Your task to perform on an android device: add a label to a message in the gmail app Image 0: 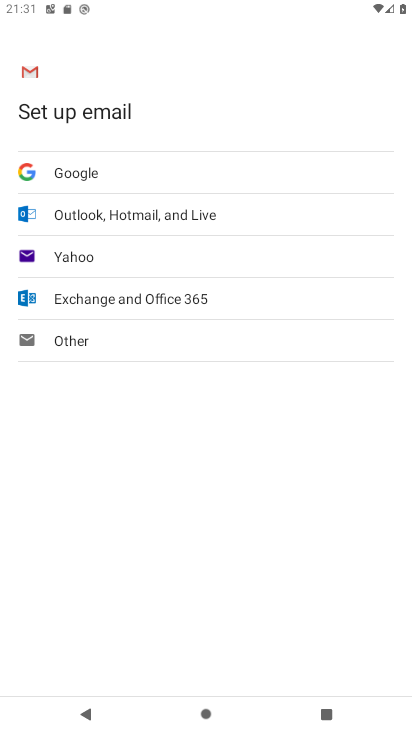
Step 0: press back button
Your task to perform on an android device: add a label to a message in the gmail app Image 1: 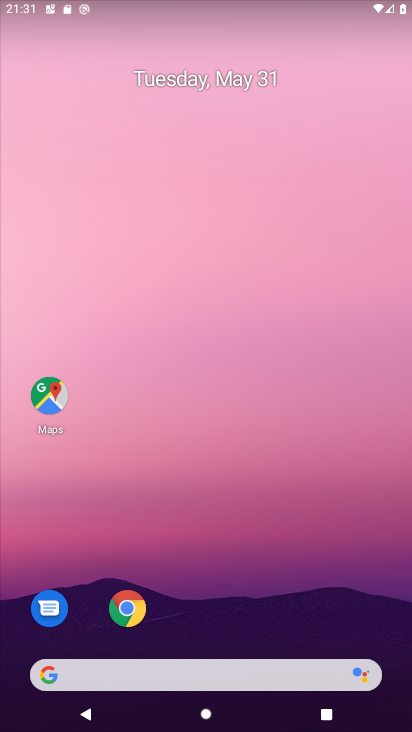
Step 1: drag from (265, 607) to (158, 104)
Your task to perform on an android device: add a label to a message in the gmail app Image 2: 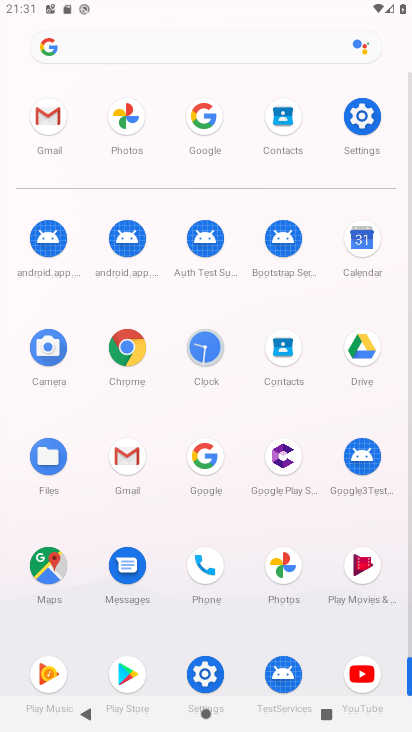
Step 2: click (47, 113)
Your task to perform on an android device: add a label to a message in the gmail app Image 3: 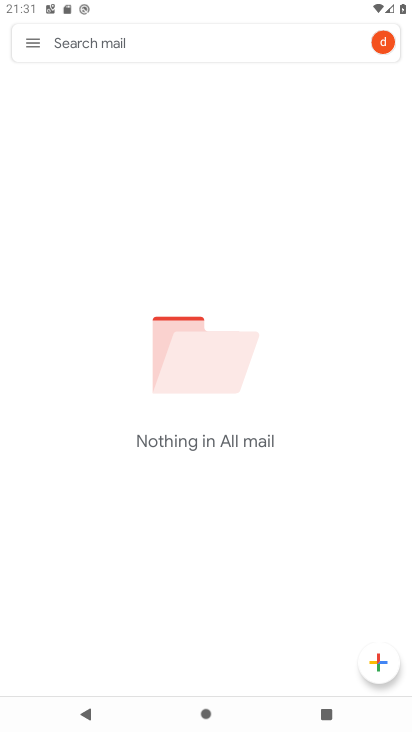
Step 3: click (30, 43)
Your task to perform on an android device: add a label to a message in the gmail app Image 4: 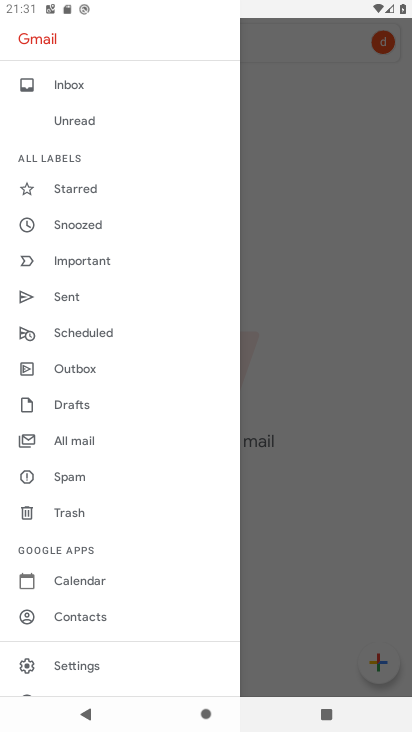
Step 4: click (83, 95)
Your task to perform on an android device: add a label to a message in the gmail app Image 5: 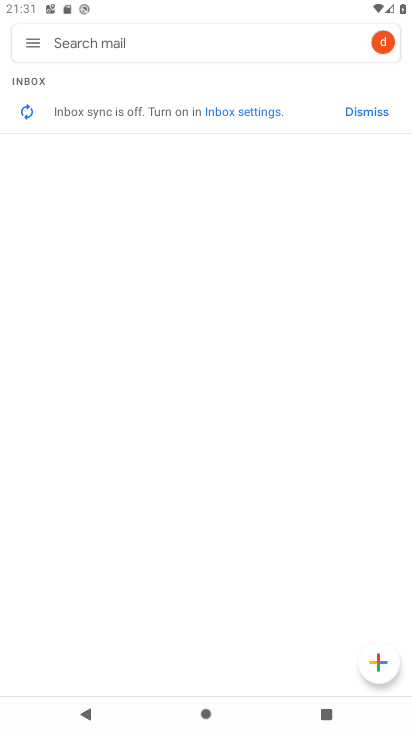
Step 5: click (39, 45)
Your task to perform on an android device: add a label to a message in the gmail app Image 6: 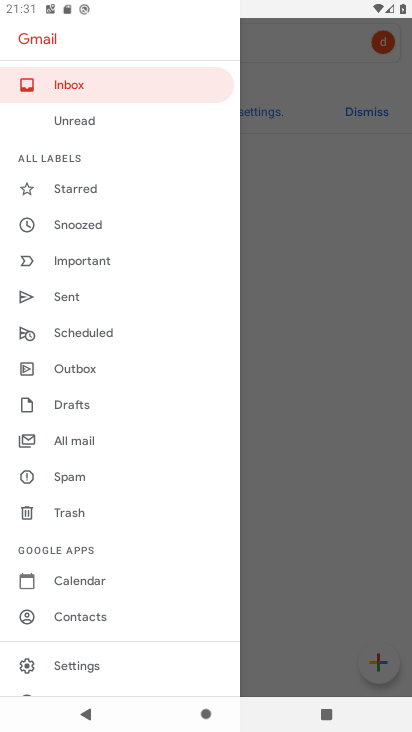
Step 6: click (65, 116)
Your task to perform on an android device: add a label to a message in the gmail app Image 7: 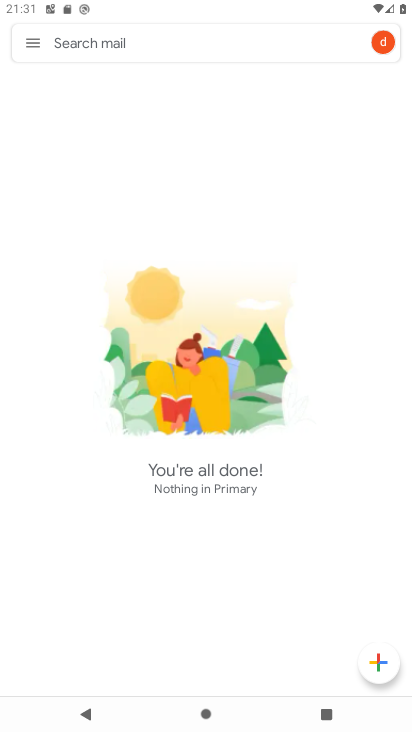
Step 7: click (34, 50)
Your task to perform on an android device: add a label to a message in the gmail app Image 8: 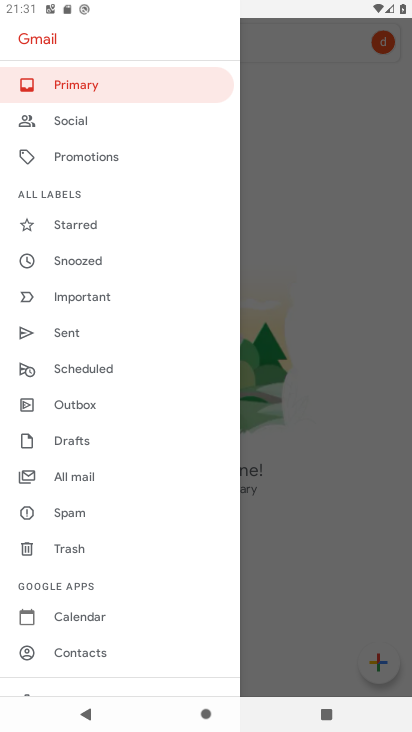
Step 8: click (82, 223)
Your task to perform on an android device: add a label to a message in the gmail app Image 9: 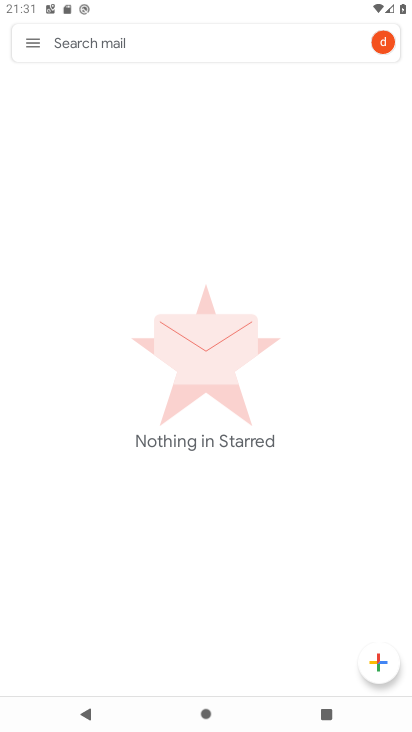
Step 9: click (48, 56)
Your task to perform on an android device: add a label to a message in the gmail app Image 10: 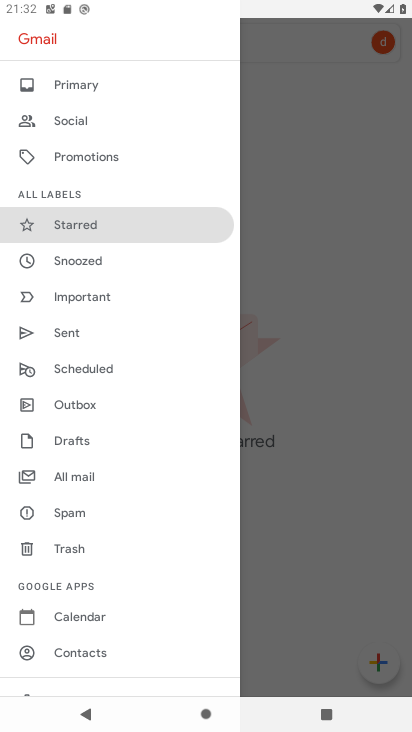
Step 10: click (82, 270)
Your task to perform on an android device: add a label to a message in the gmail app Image 11: 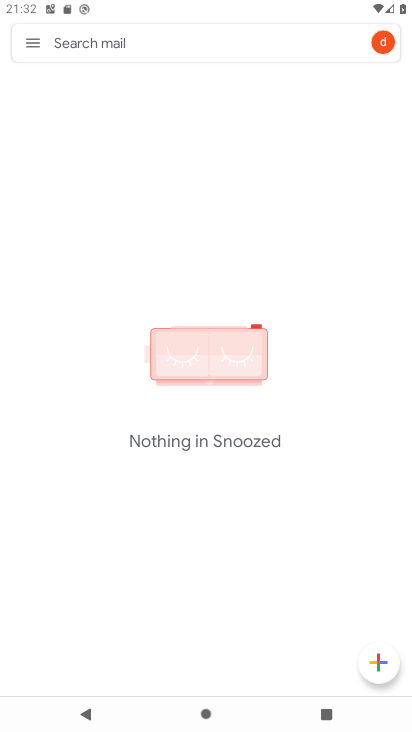
Step 11: task complete